Your task to perform on an android device: turn smart compose on in the gmail app Image 0: 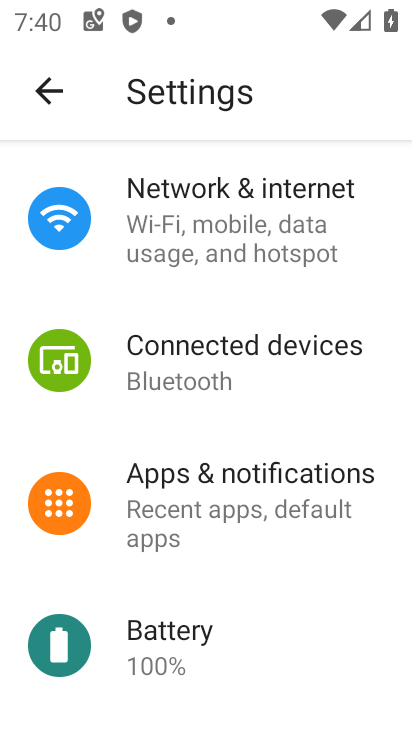
Step 0: press home button
Your task to perform on an android device: turn smart compose on in the gmail app Image 1: 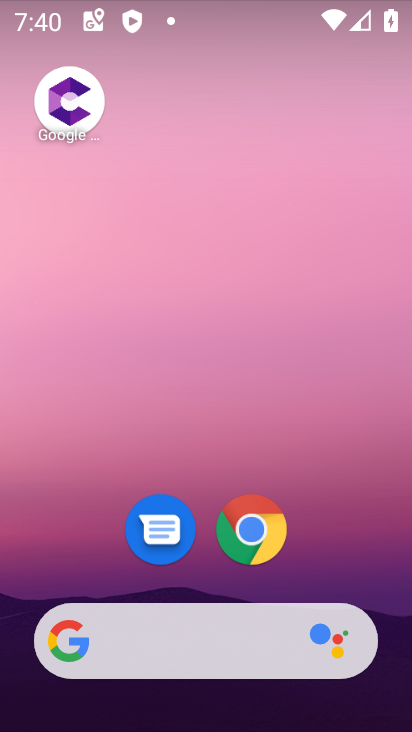
Step 1: drag from (345, 517) to (230, 14)
Your task to perform on an android device: turn smart compose on in the gmail app Image 2: 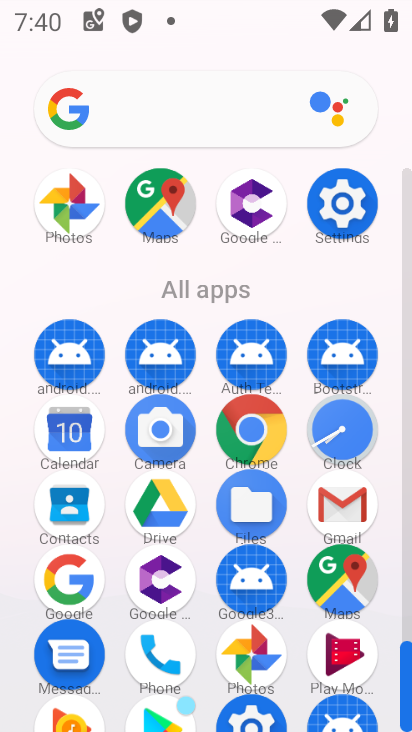
Step 2: click (328, 482)
Your task to perform on an android device: turn smart compose on in the gmail app Image 3: 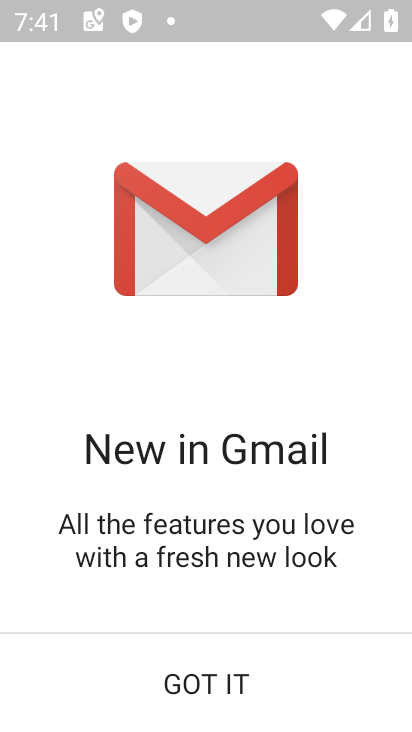
Step 3: click (222, 675)
Your task to perform on an android device: turn smart compose on in the gmail app Image 4: 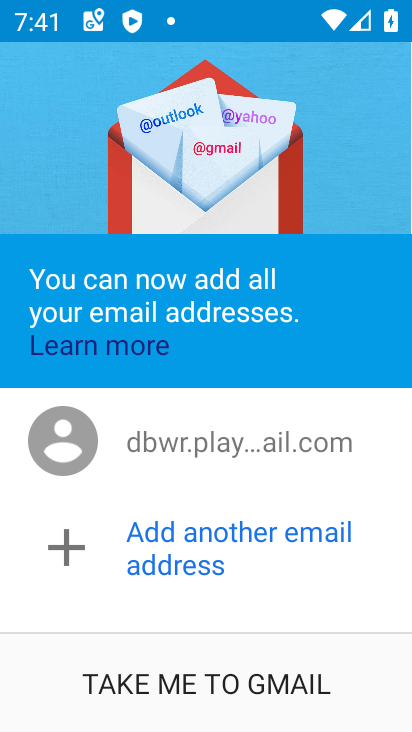
Step 4: click (229, 661)
Your task to perform on an android device: turn smart compose on in the gmail app Image 5: 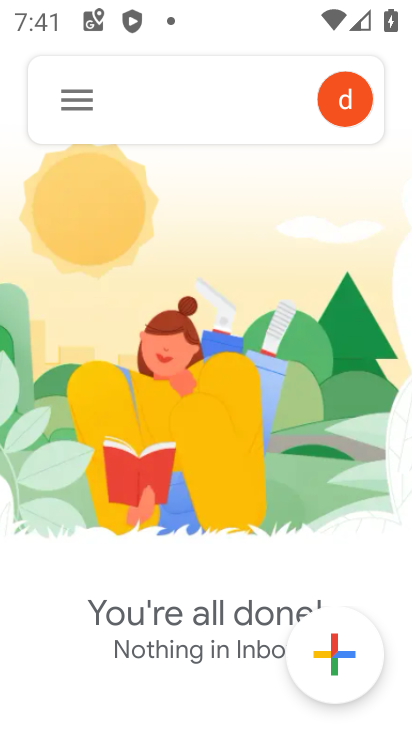
Step 5: click (70, 103)
Your task to perform on an android device: turn smart compose on in the gmail app Image 6: 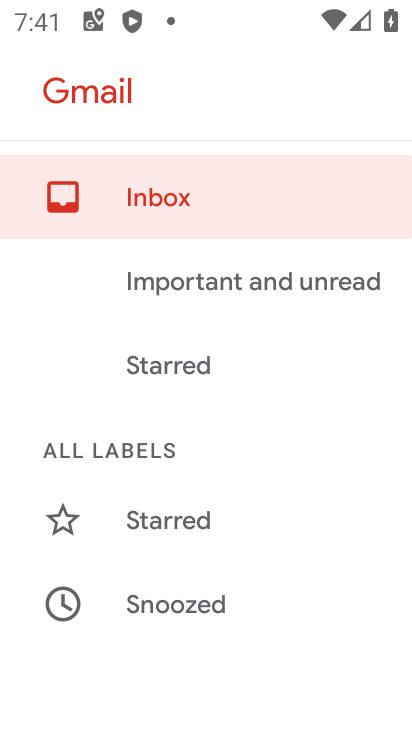
Step 6: drag from (172, 575) to (146, 362)
Your task to perform on an android device: turn smart compose on in the gmail app Image 7: 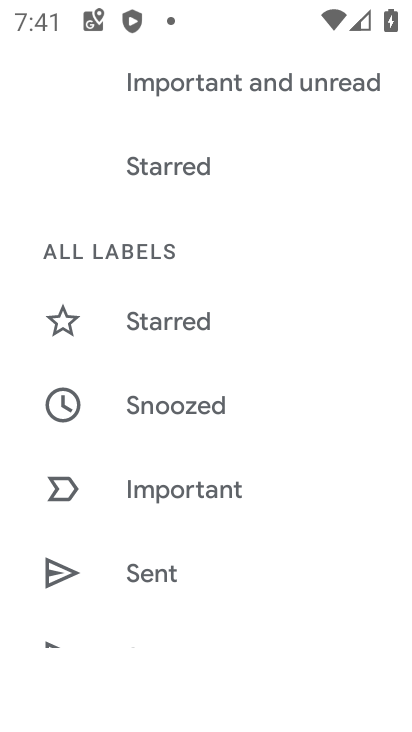
Step 7: drag from (148, 639) to (163, 223)
Your task to perform on an android device: turn smart compose on in the gmail app Image 8: 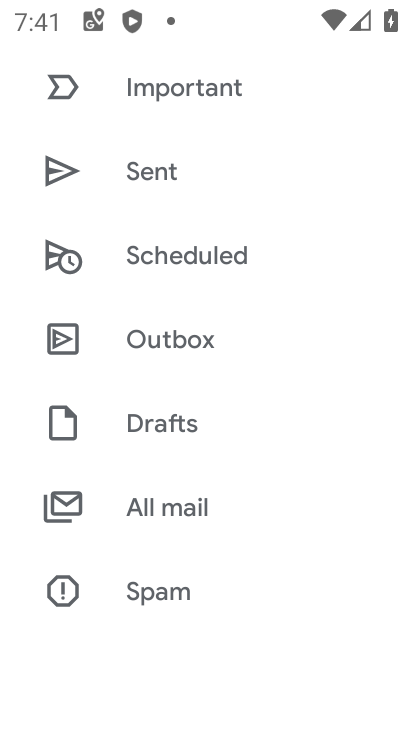
Step 8: drag from (204, 610) to (218, 300)
Your task to perform on an android device: turn smart compose on in the gmail app Image 9: 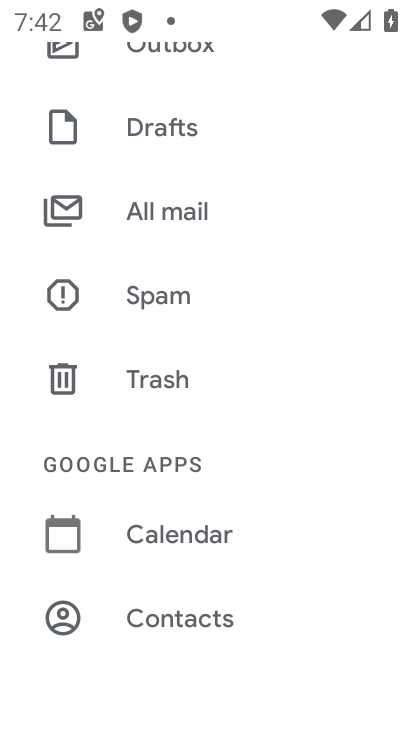
Step 9: drag from (228, 617) to (229, 352)
Your task to perform on an android device: turn smart compose on in the gmail app Image 10: 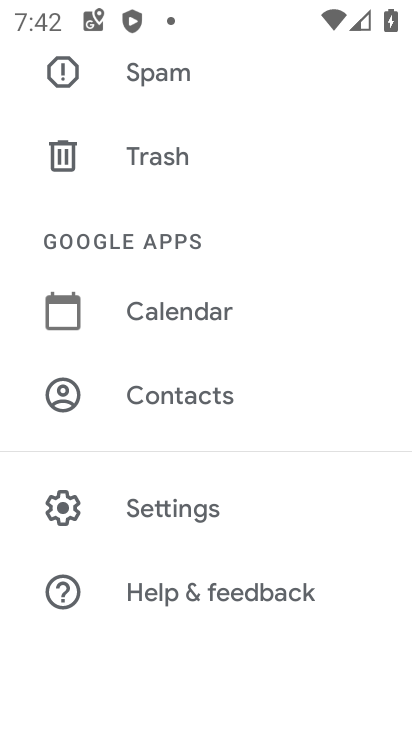
Step 10: click (223, 500)
Your task to perform on an android device: turn smart compose on in the gmail app Image 11: 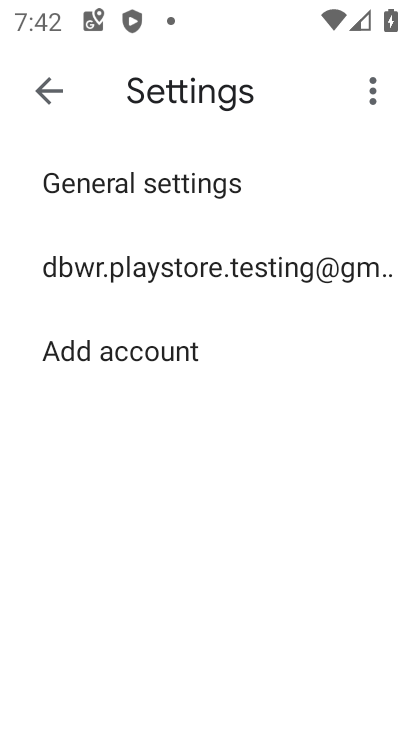
Step 11: click (185, 253)
Your task to perform on an android device: turn smart compose on in the gmail app Image 12: 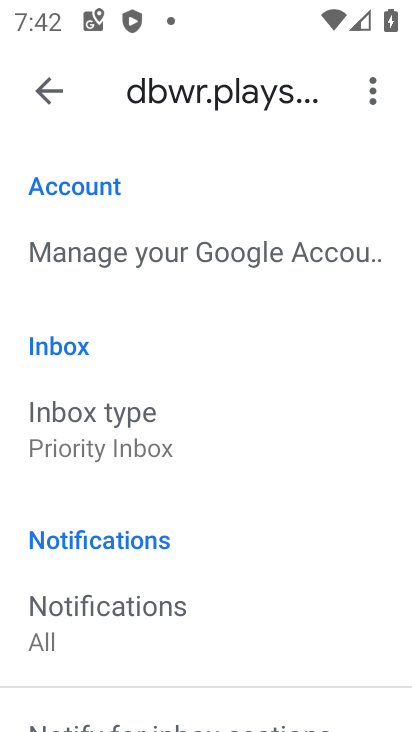
Step 12: drag from (193, 575) to (190, 68)
Your task to perform on an android device: turn smart compose on in the gmail app Image 13: 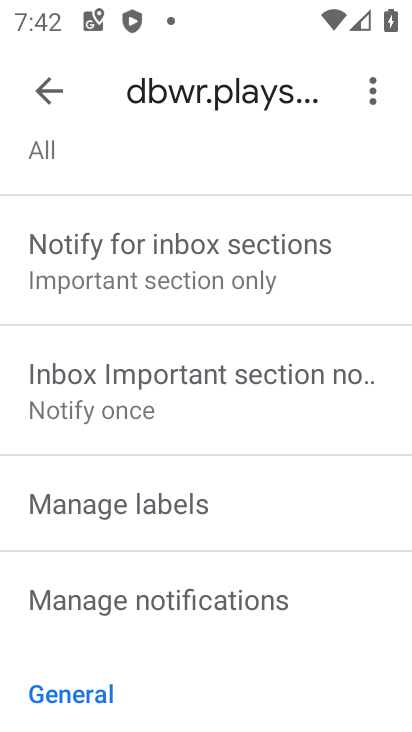
Step 13: drag from (237, 670) to (298, 259)
Your task to perform on an android device: turn smart compose on in the gmail app Image 14: 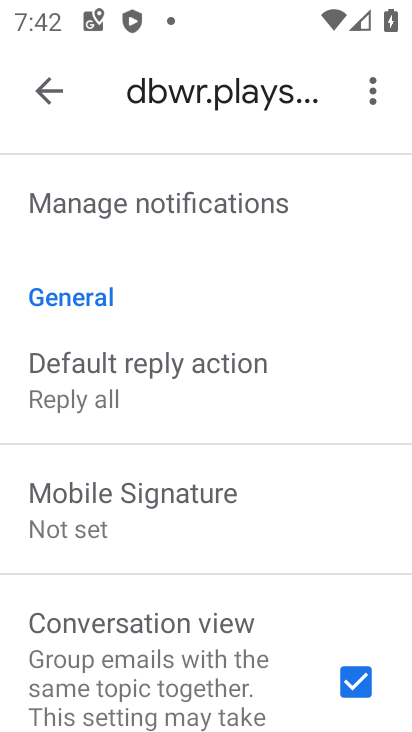
Step 14: click (232, 628)
Your task to perform on an android device: turn smart compose on in the gmail app Image 15: 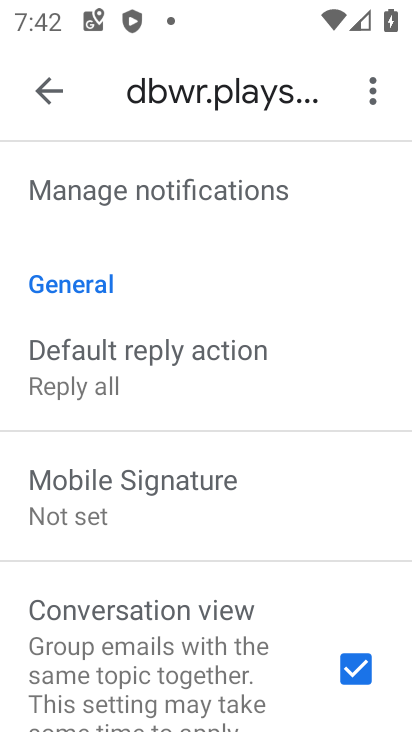
Step 15: drag from (167, 649) to (134, 324)
Your task to perform on an android device: turn smart compose on in the gmail app Image 16: 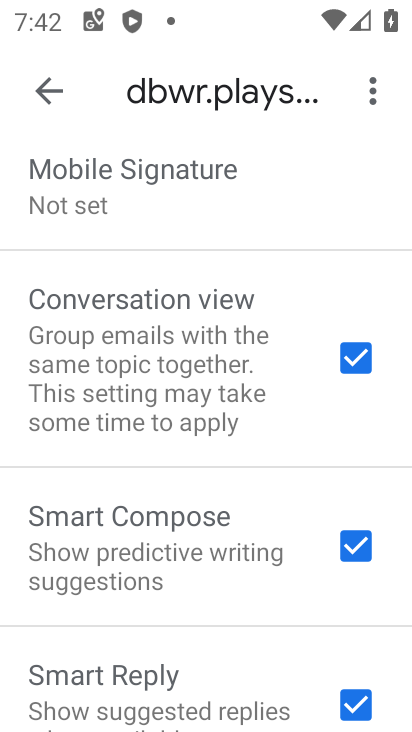
Step 16: drag from (189, 689) to (199, 429)
Your task to perform on an android device: turn smart compose on in the gmail app Image 17: 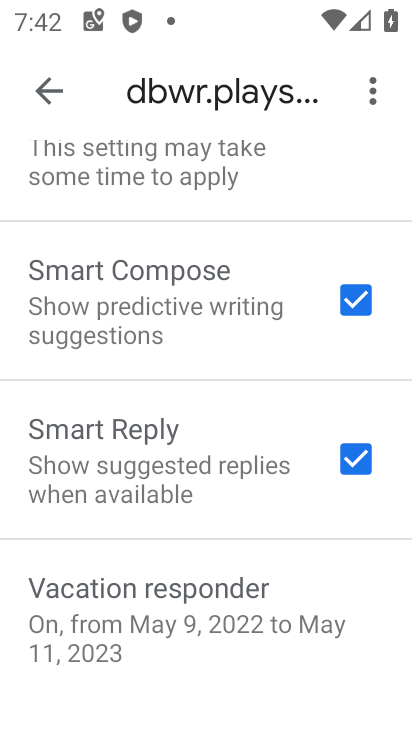
Step 17: click (339, 307)
Your task to perform on an android device: turn smart compose on in the gmail app Image 18: 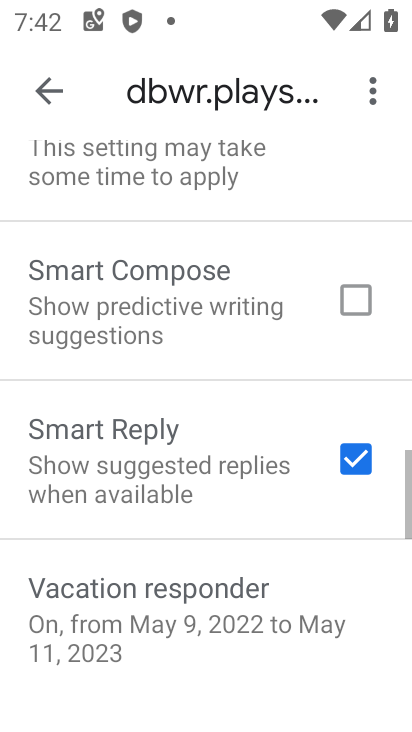
Step 18: click (366, 298)
Your task to perform on an android device: turn smart compose on in the gmail app Image 19: 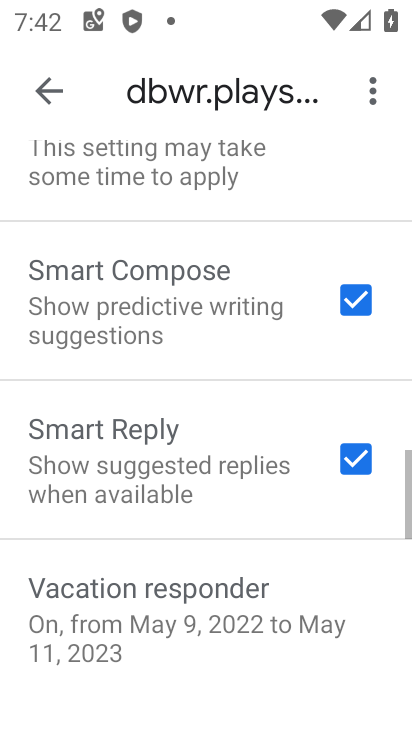
Step 19: task complete